Your task to perform on an android device: delete browsing data in the chrome app Image 0: 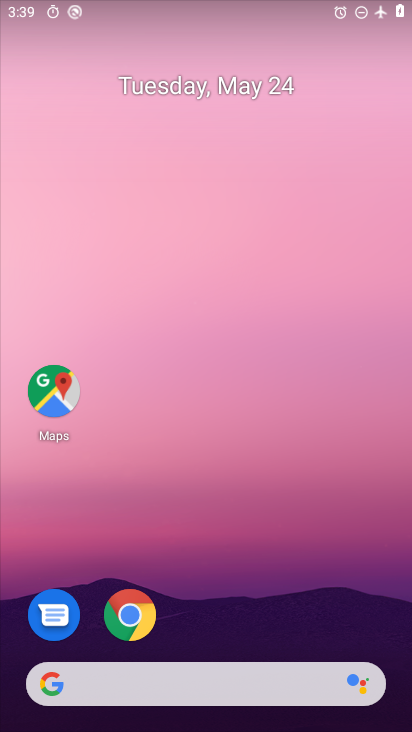
Step 0: click (135, 607)
Your task to perform on an android device: delete browsing data in the chrome app Image 1: 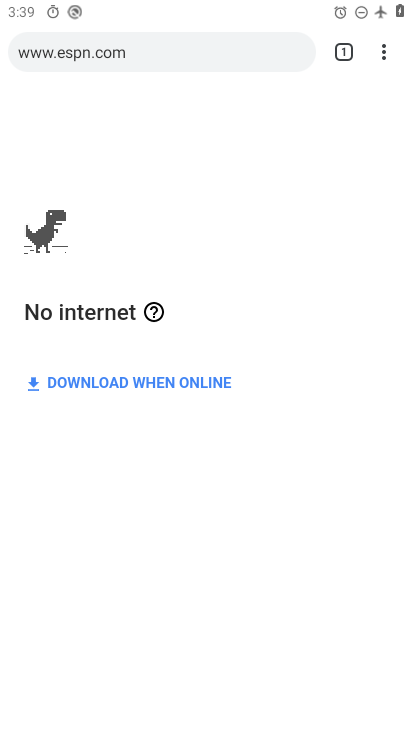
Step 1: click (384, 54)
Your task to perform on an android device: delete browsing data in the chrome app Image 2: 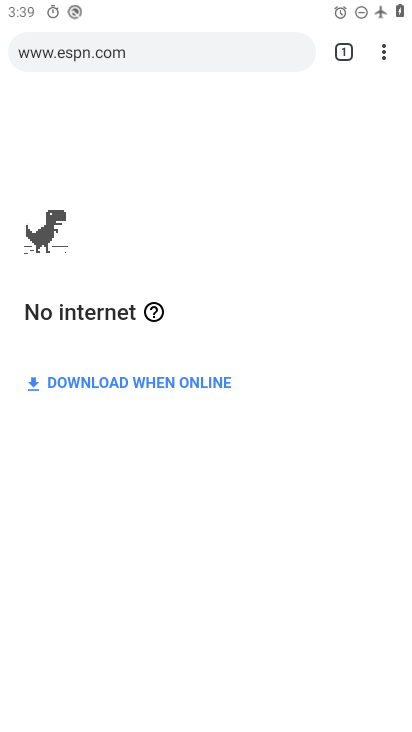
Step 2: click (384, 54)
Your task to perform on an android device: delete browsing data in the chrome app Image 3: 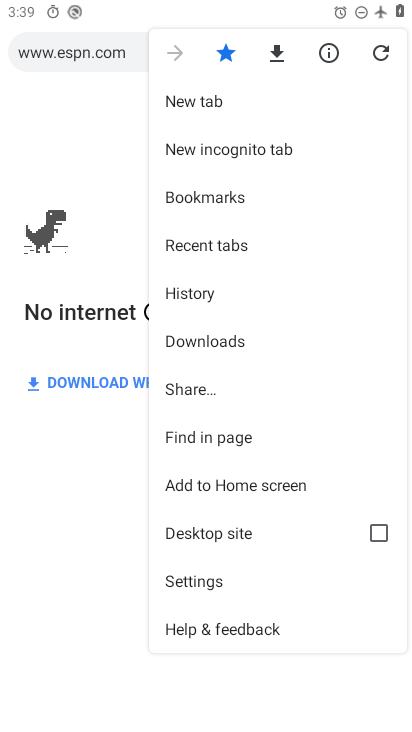
Step 3: click (191, 578)
Your task to perform on an android device: delete browsing data in the chrome app Image 4: 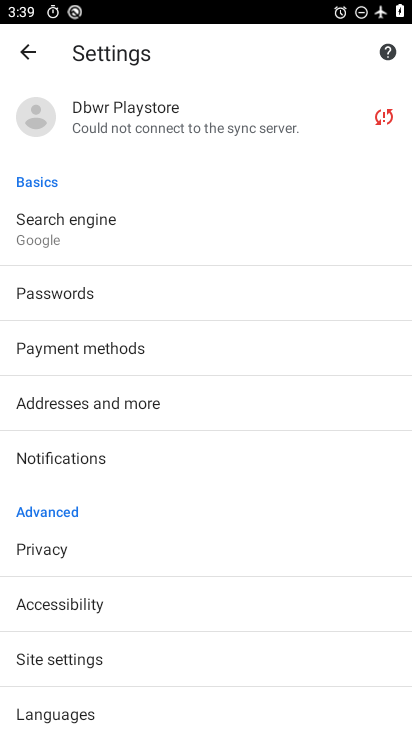
Step 4: click (49, 550)
Your task to perform on an android device: delete browsing data in the chrome app Image 5: 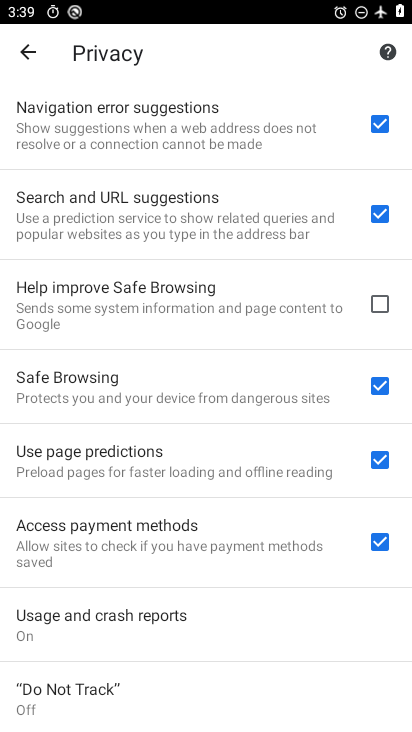
Step 5: drag from (119, 694) to (184, 219)
Your task to perform on an android device: delete browsing data in the chrome app Image 6: 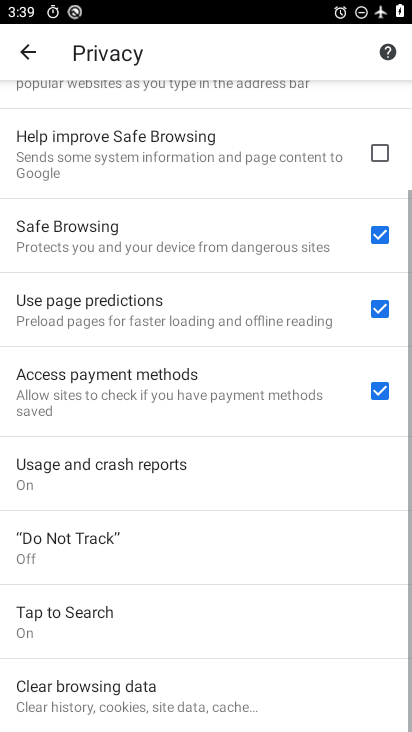
Step 6: click (149, 697)
Your task to perform on an android device: delete browsing data in the chrome app Image 7: 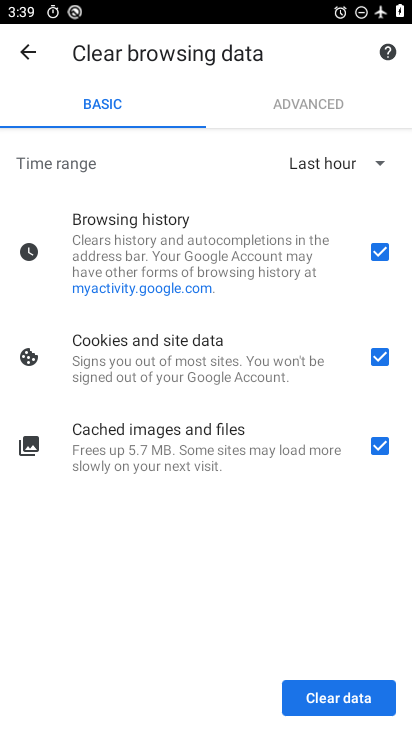
Step 7: click (329, 695)
Your task to perform on an android device: delete browsing data in the chrome app Image 8: 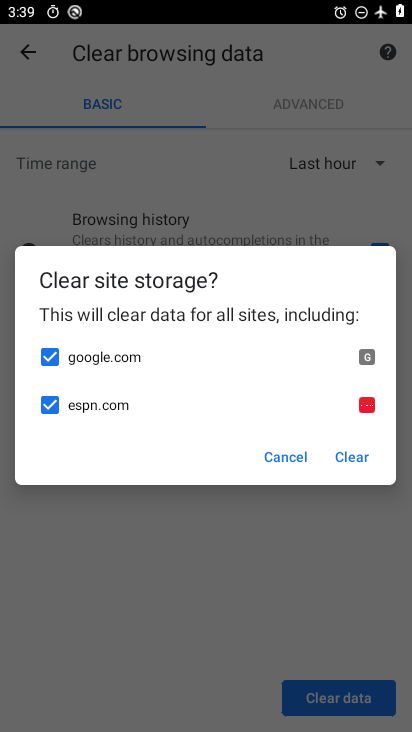
Step 8: click (349, 449)
Your task to perform on an android device: delete browsing data in the chrome app Image 9: 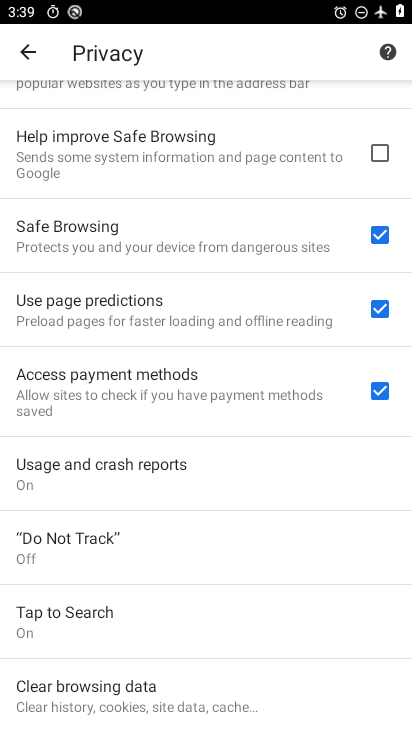
Step 9: task complete